Your task to perform on an android device: Open the calendar app, open the side menu, and click the "Day" option Image 0: 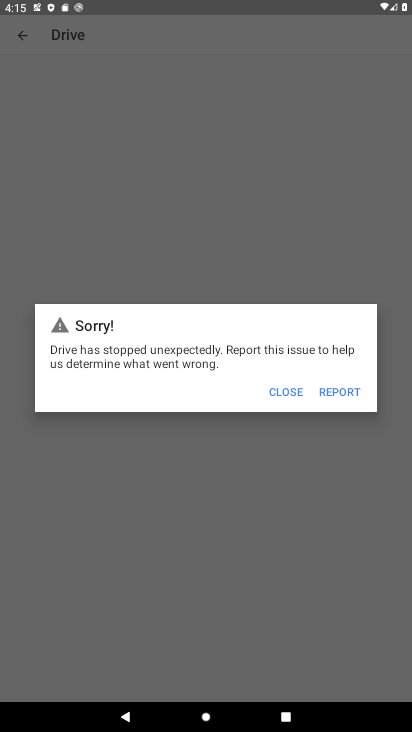
Step 0: press home button
Your task to perform on an android device: Open the calendar app, open the side menu, and click the "Day" option Image 1: 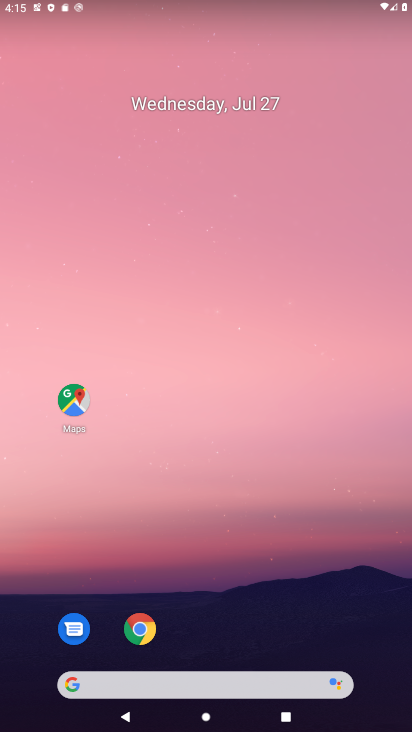
Step 1: drag from (267, 653) to (156, 50)
Your task to perform on an android device: Open the calendar app, open the side menu, and click the "Day" option Image 2: 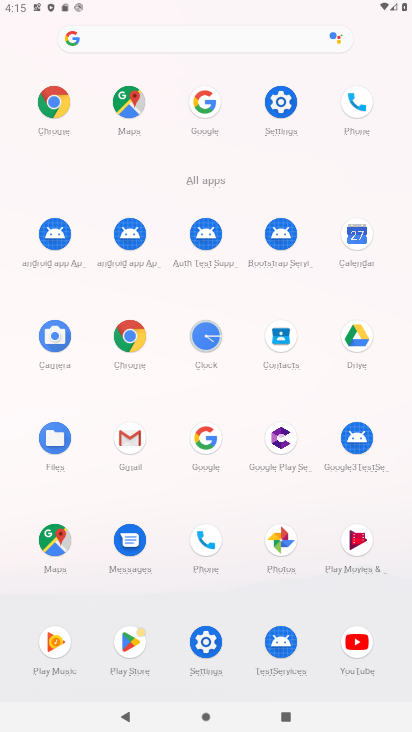
Step 2: click (349, 229)
Your task to perform on an android device: Open the calendar app, open the side menu, and click the "Day" option Image 3: 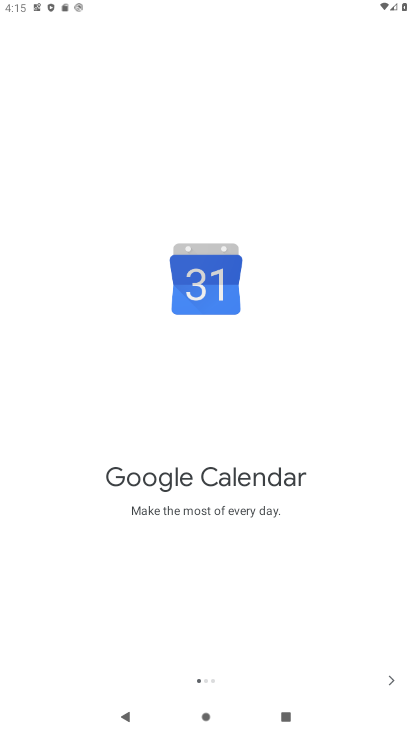
Step 3: click (384, 671)
Your task to perform on an android device: Open the calendar app, open the side menu, and click the "Day" option Image 4: 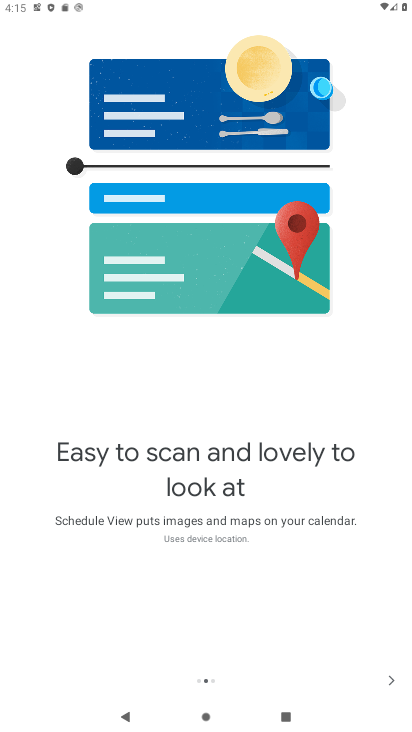
Step 4: click (384, 671)
Your task to perform on an android device: Open the calendar app, open the side menu, and click the "Day" option Image 5: 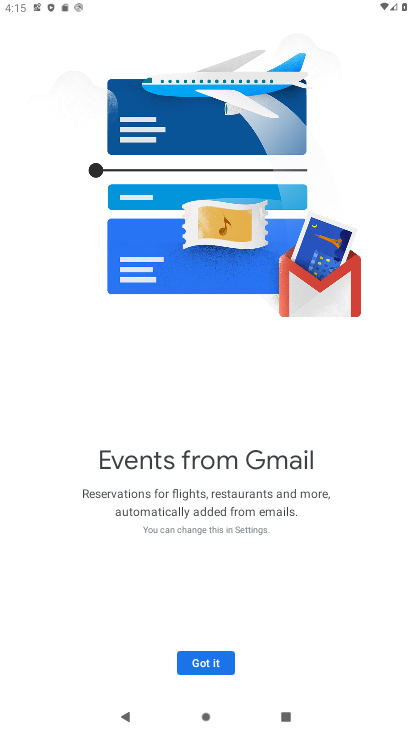
Step 5: click (216, 657)
Your task to perform on an android device: Open the calendar app, open the side menu, and click the "Day" option Image 6: 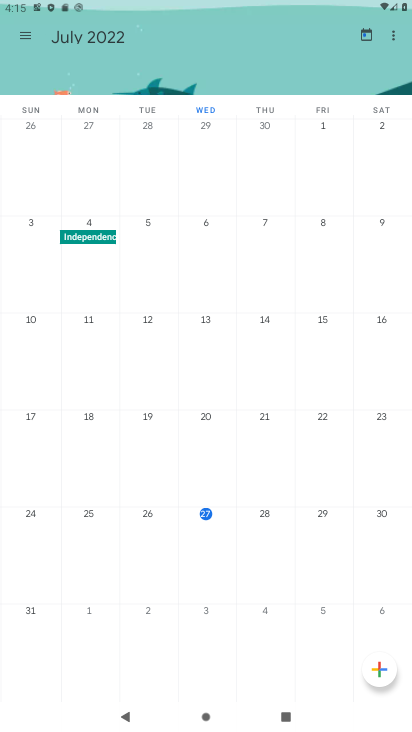
Step 6: click (31, 31)
Your task to perform on an android device: Open the calendar app, open the side menu, and click the "Day" option Image 7: 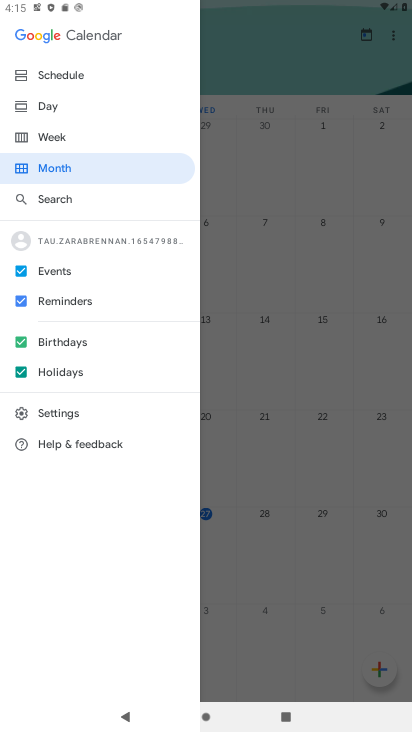
Step 7: click (42, 116)
Your task to perform on an android device: Open the calendar app, open the side menu, and click the "Day" option Image 8: 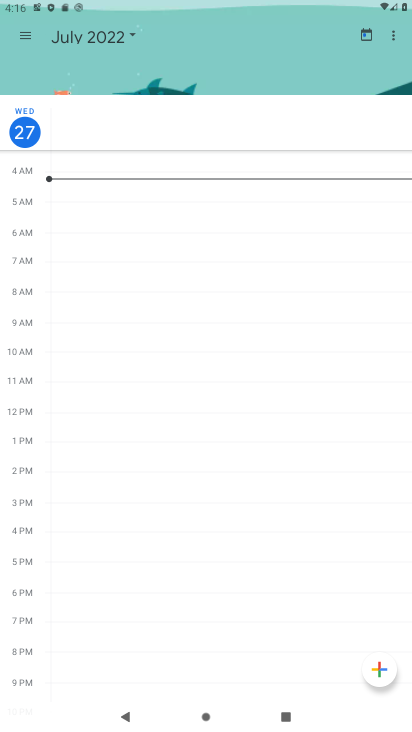
Step 8: click (30, 30)
Your task to perform on an android device: Open the calendar app, open the side menu, and click the "Day" option Image 9: 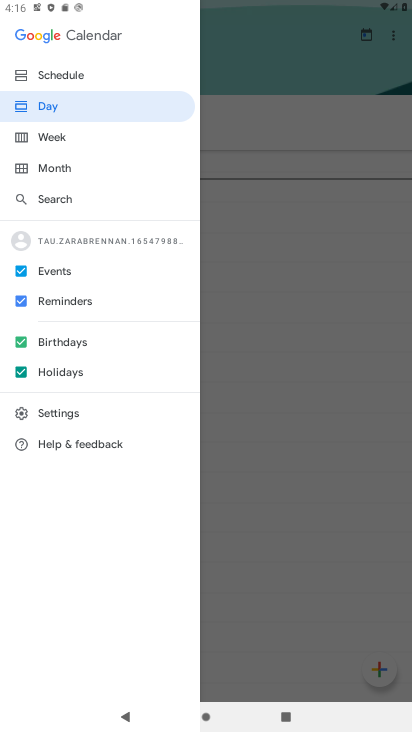
Step 9: click (45, 98)
Your task to perform on an android device: Open the calendar app, open the side menu, and click the "Day" option Image 10: 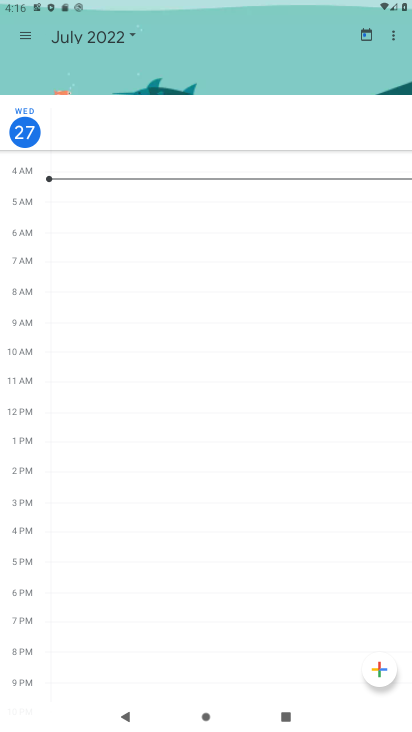
Step 10: task complete